Your task to perform on an android device: What's the weather? Image 0: 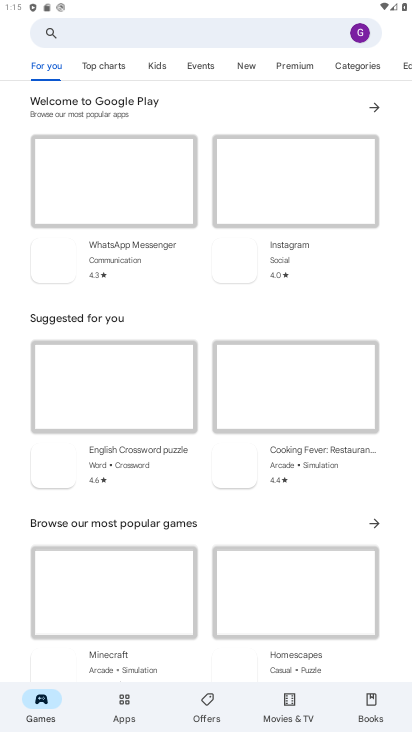
Step 0: press home button
Your task to perform on an android device: What's the weather? Image 1: 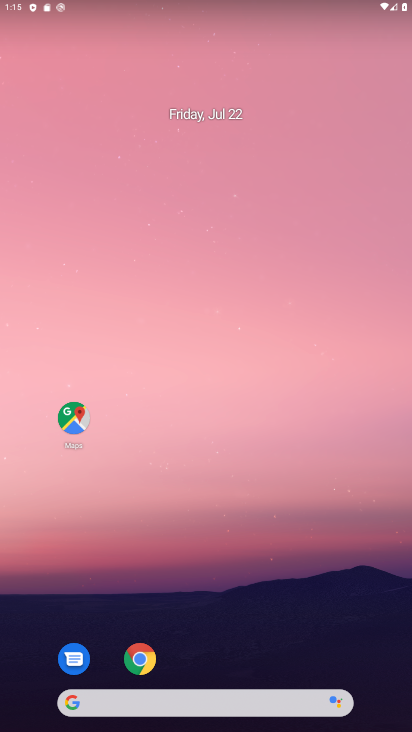
Step 1: click (199, 706)
Your task to perform on an android device: What's the weather? Image 2: 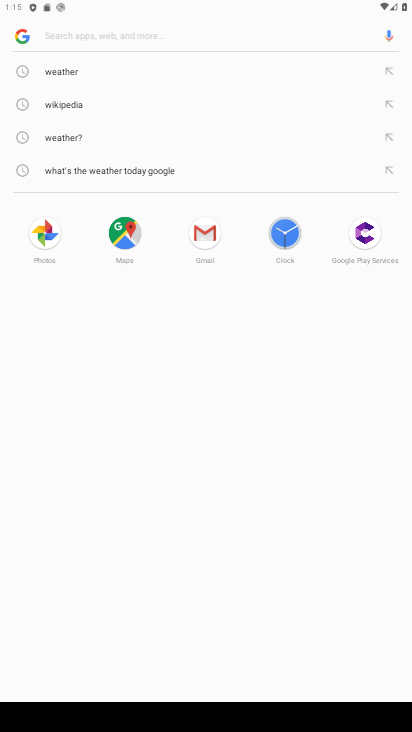
Step 2: type "what's the weather "
Your task to perform on an android device: What's the weather? Image 3: 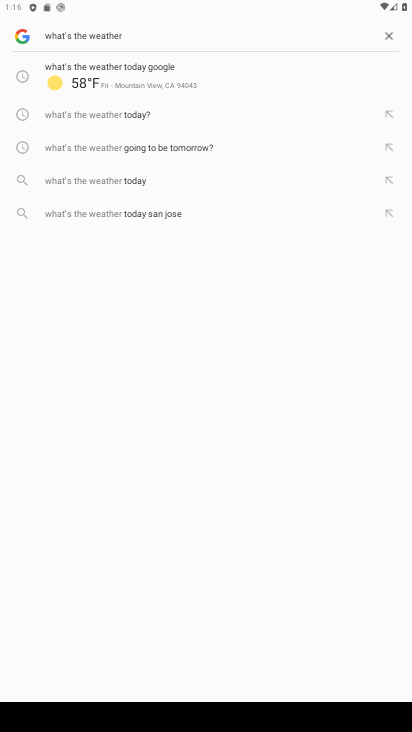
Step 3: click (133, 89)
Your task to perform on an android device: What's the weather? Image 4: 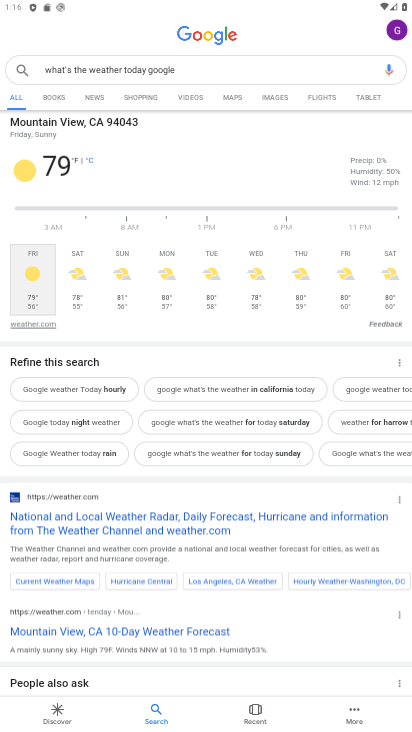
Step 4: task complete